Your task to perform on an android device: toggle wifi Image 0: 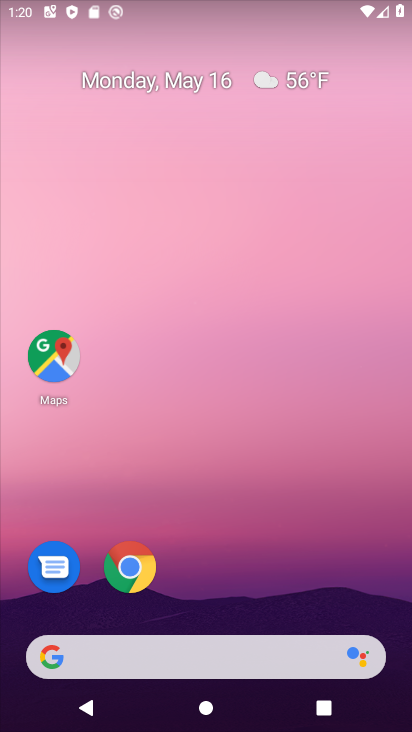
Step 0: drag from (181, 624) to (241, 225)
Your task to perform on an android device: toggle wifi Image 1: 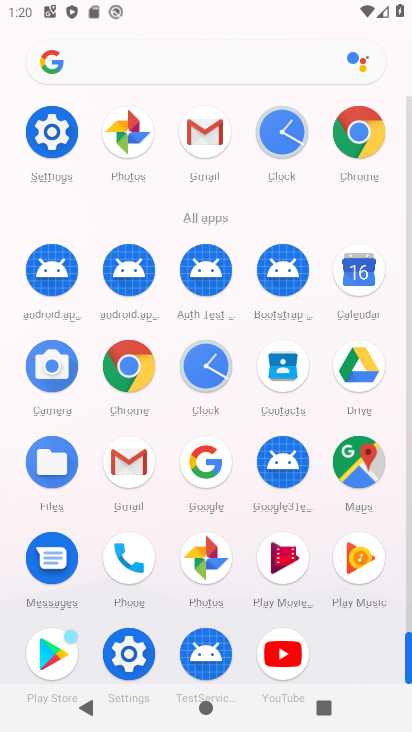
Step 1: click (127, 662)
Your task to perform on an android device: toggle wifi Image 2: 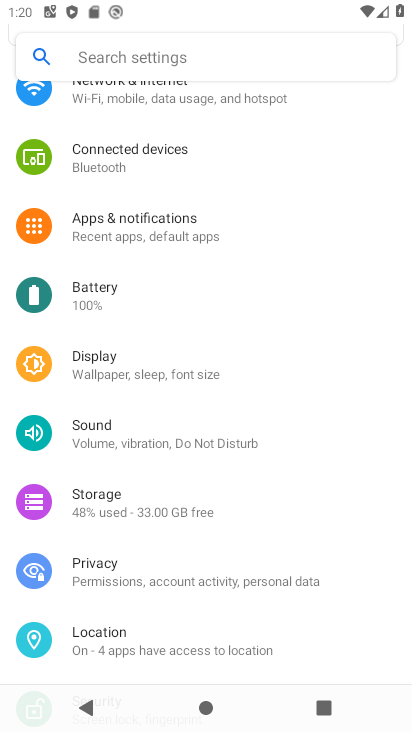
Step 2: drag from (284, 158) to (223, 525)
Your task to perform on an android device: toggle wifi Image 3: 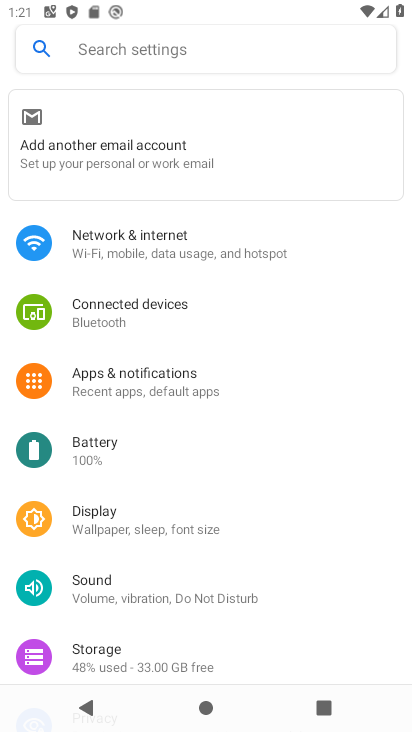
Step 3: click (155, 248)
Your task to perform on an android device: toggle wifi Image 4: 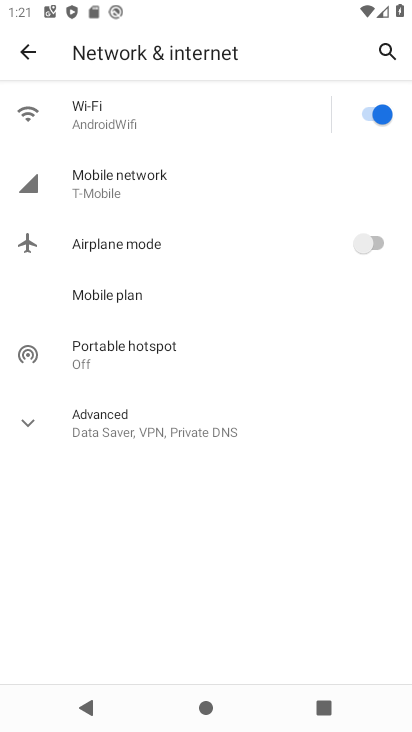
Step 4: click (379, 115)
Your task to perform on an android device: toggle wifi Image 5: 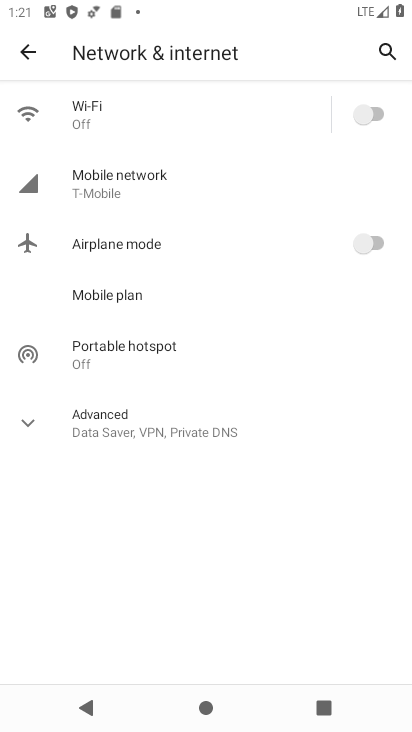
Step 5: task complete